Your task to perform on an android device: turn on the 12-hour format for clock Image 0: 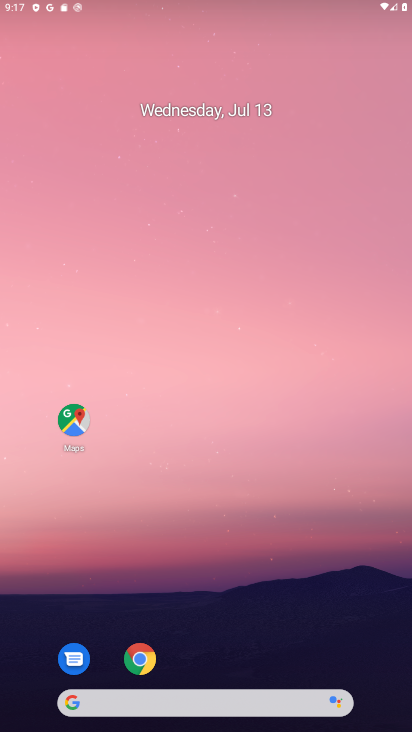
Step 0: drag from (305, 646) to (305, 210)
Your task to perform on an android device: turn on the 12-hour format for clock Image 1: 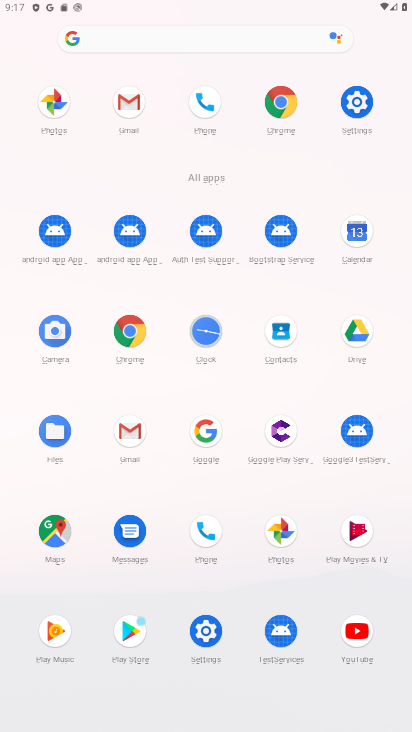
Step 1: click (203, 329)
Your task to perform on an android device: turn on the 12-hour format for clock Image 2: 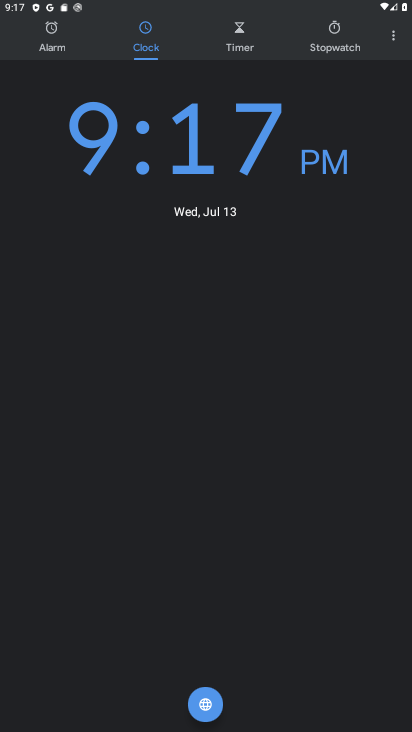
Step 2: click (397, 45)
Your task to perform on an android device: turn on the 12-hour format for clock Image 3: 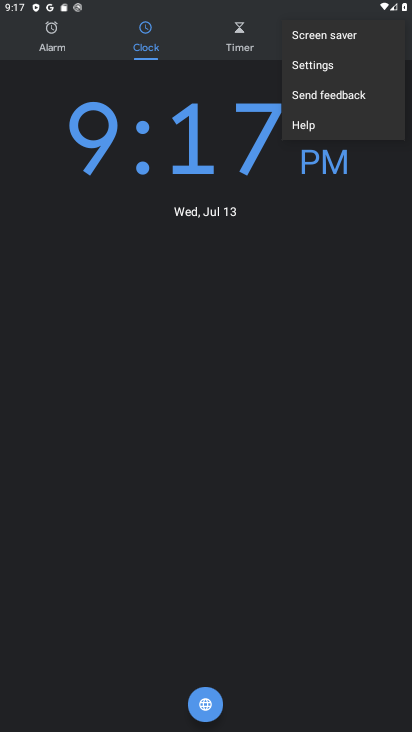
Step 3: click (319, 67)
Your task to perform on an android device: turn on the 12-hour format for clock Image 4: 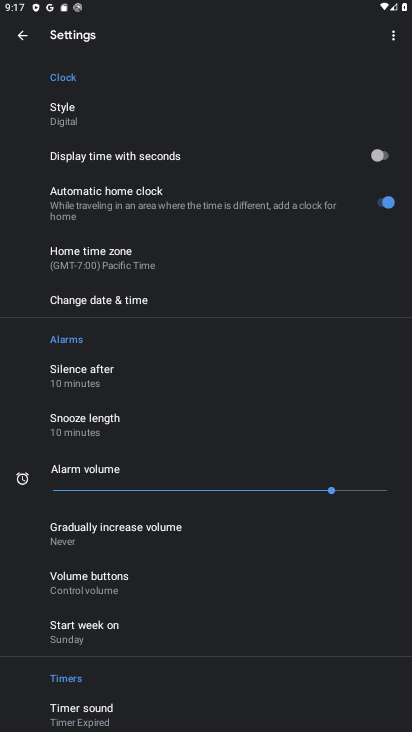
Step 4: drag from (283, 287) to (324, 116)
Your task to perform on an android device: turn on the 12-hour format for clock Image 5: 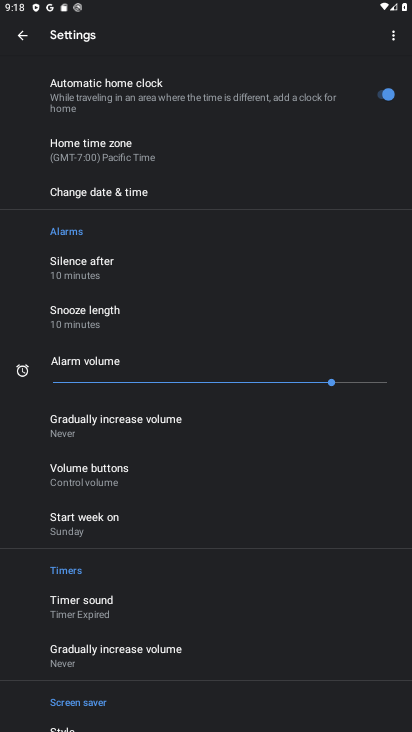
Step 5: drag from (196, 550) to (210, 222)
Your task to perform on an android device: turn on the 12-hour format for clock Image 6: 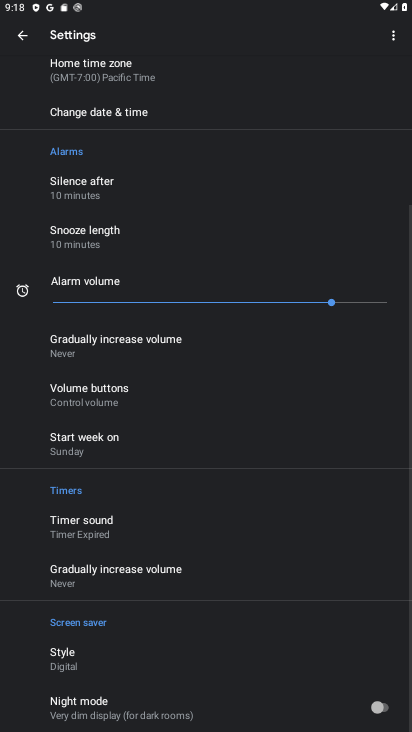
Step 6: click (204, 203)
Your task to perform on an android device: turn on the 12-hour format for clock Image 7: 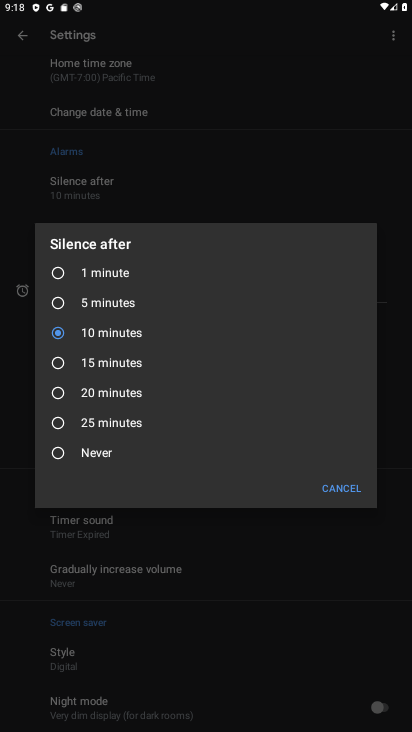
Step 7: drag from (202, 485) to (253, 203)
Your task to perform on an android device: turn on the 12-hour format for clock Image 8: 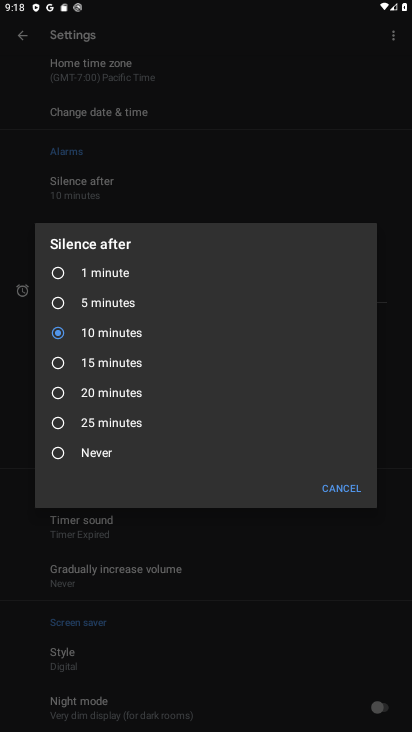
Step 8: click (215, 193)
Your task to perform on an android device: turn on the 12-hour format for clock Image 9: 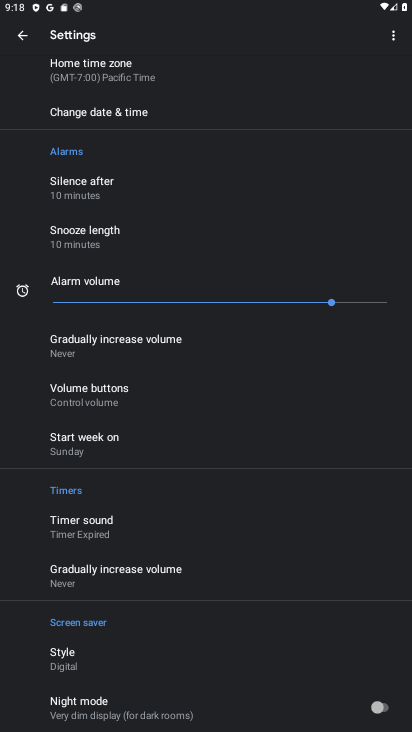
Step 9: click (155, 226)
Your task to perform on an android device: turn on the 12-hour format for clock Image 10: 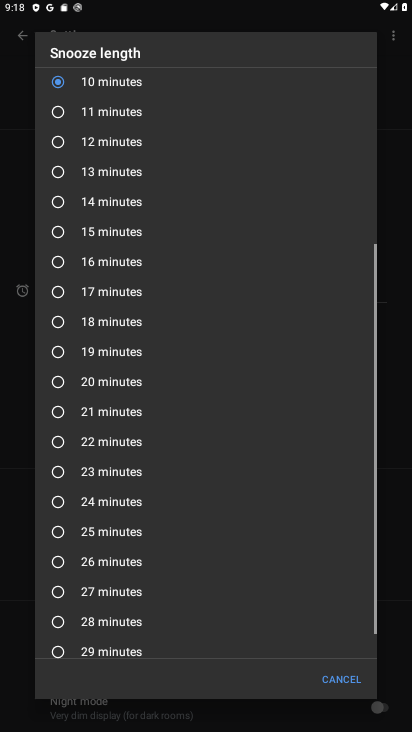
Step 10: click (174, 321)
Your task to perform on an android device: turn on the 12-hour format for clock Image 11: 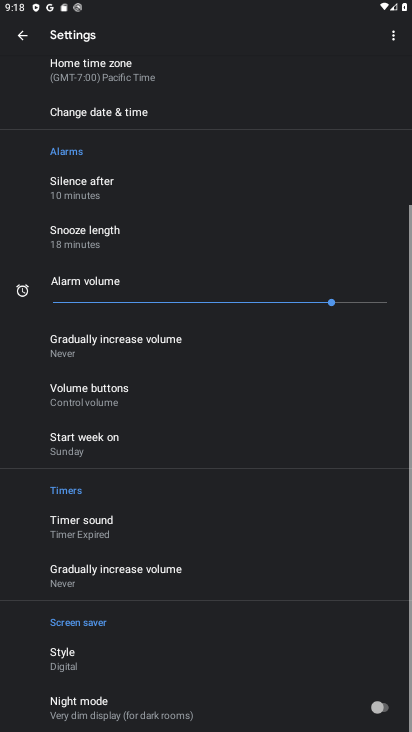
Step 11: drag from (174, 344) to (286, 97)
Your task to perform on an android device: turn on the 12-hour format for clock Image 12: 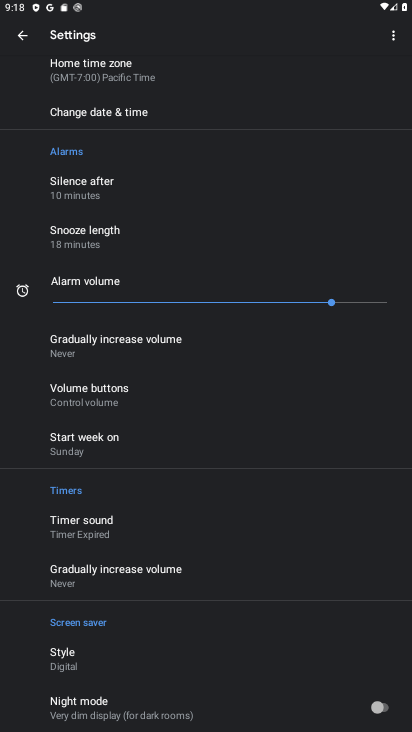
Step 12: click (142, 113)
Your task to perform on an android device: turn on the 12-hour format for clock Image 13: 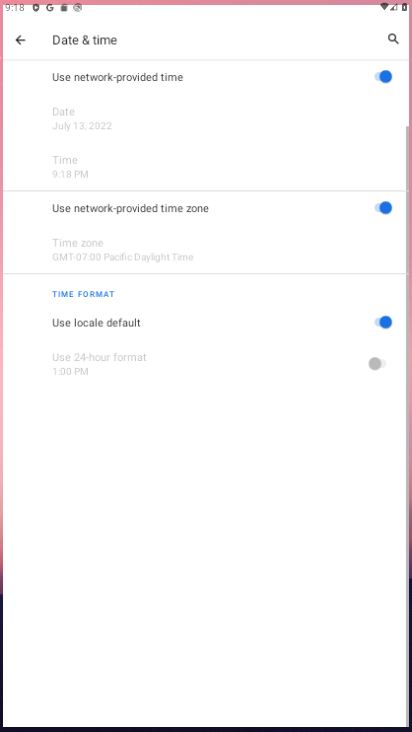
Step 13: click (137, 110)
Your task to perform on an android device: turn on the 12-hour format for clock Image 14: 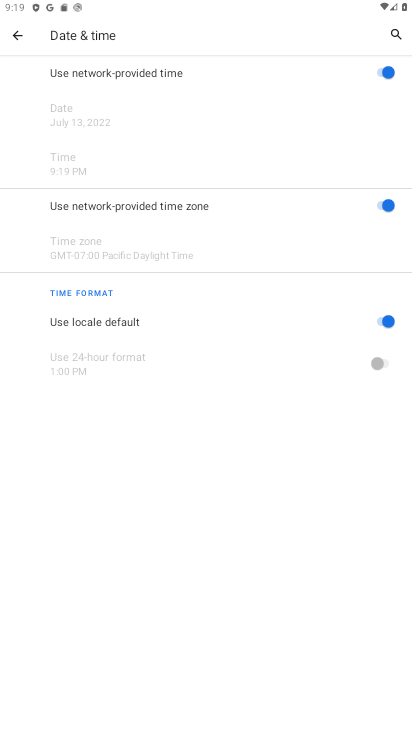
Step 14: click (383, 353)
Your task to perform on an android device: turn on the 12-hour format for clock Image 15: 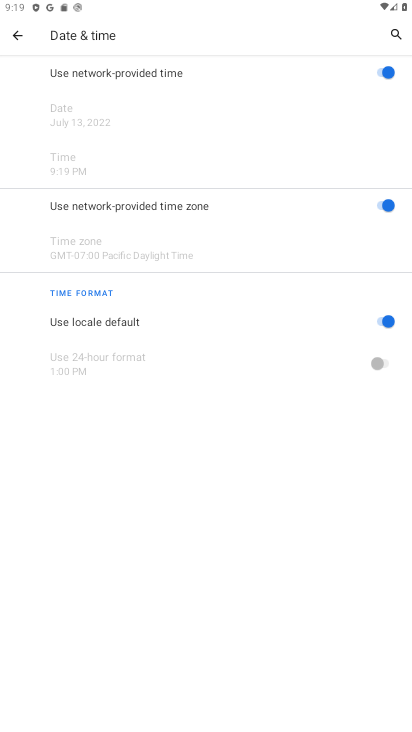
Step 15: click (365, 316)
Your task to perform on an android device: turn on the 12-hour format for clock Image 16: 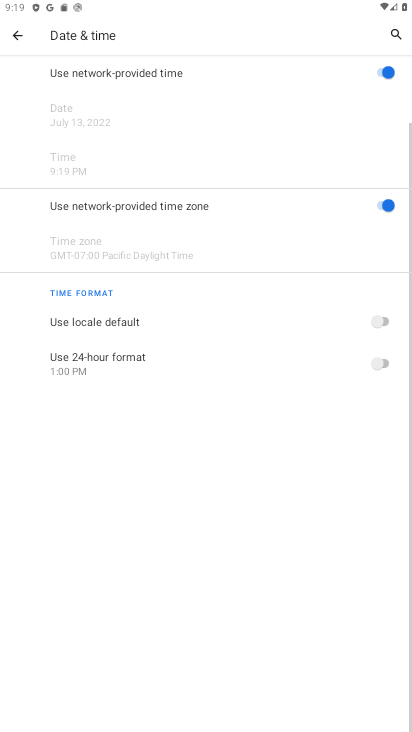
Step 16: click (387, 358)
Your task to perform on an android device: turn on the 12-hour format for clock Image 17: 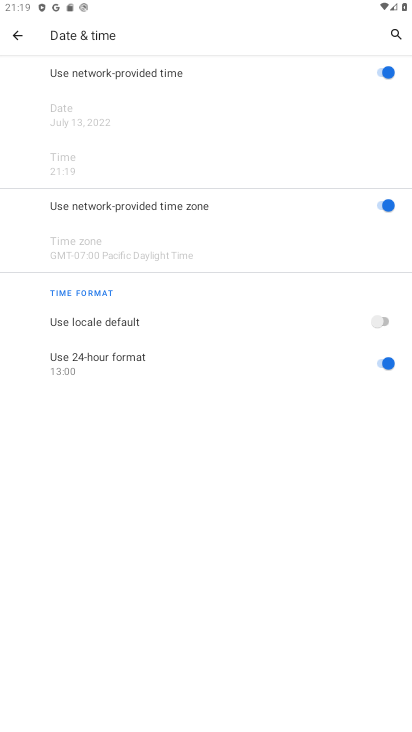
Step 17: task complete